Your task to perform on an android device: turn on location history Image 0: 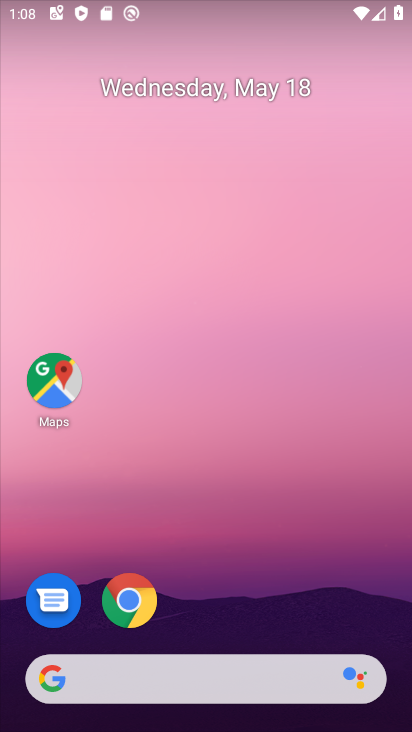
Step 0: drag from (263, 636) to (167, 196)
Your task to perform on an android device: turn on location history Image 1: 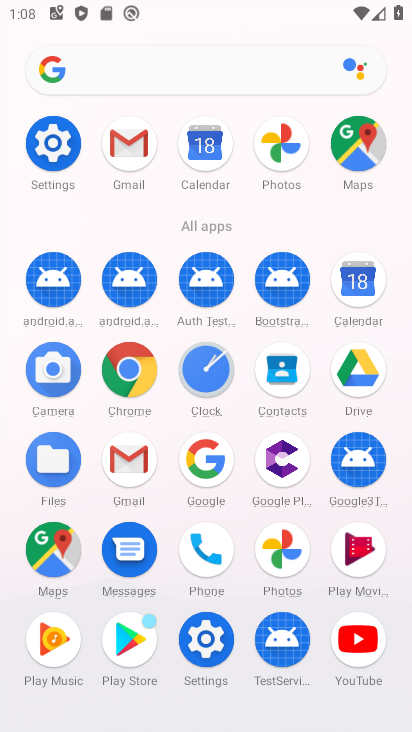
Step 1: drag from (239, 501) to (222, 369)
Your task to perform on an android device: turn on location history Image 2: 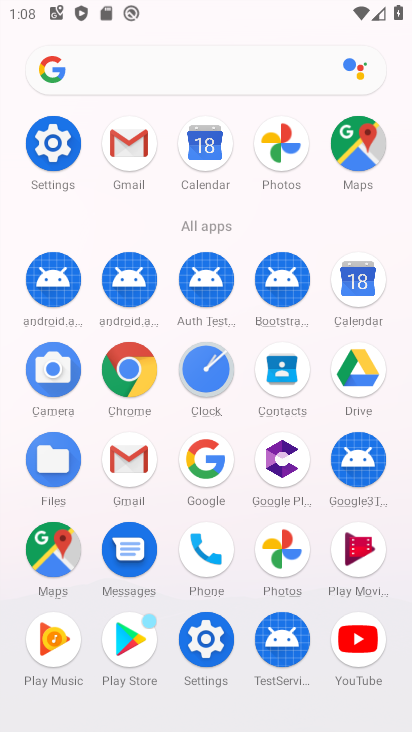
Step 2: click (51, 145)
Your task to perform on an android device: turn on location history Image 3: 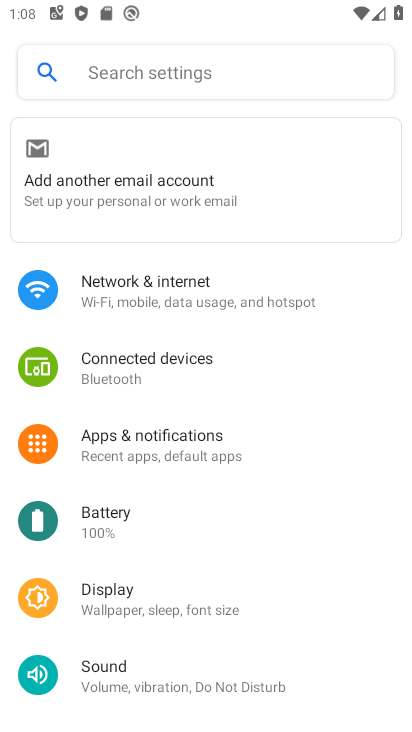
Step 3: drag from (187, 517) to (161, 366)
Your task to perform on an android device: turn on location history Image 4: 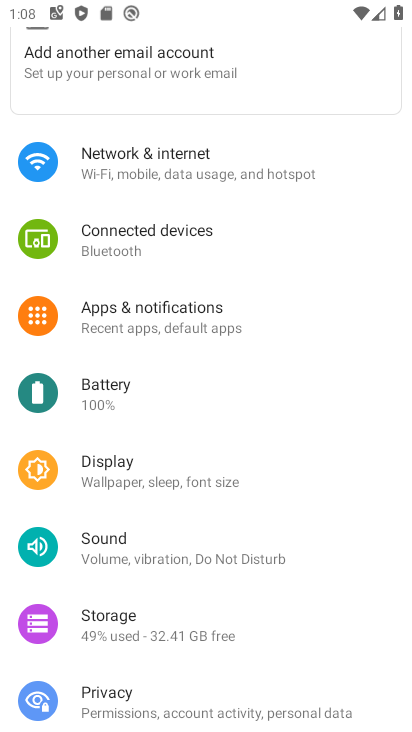
Step 4: drag from (165, 546) to (180, 443)
Your task to perform on an android device: turn on location history Image 5: 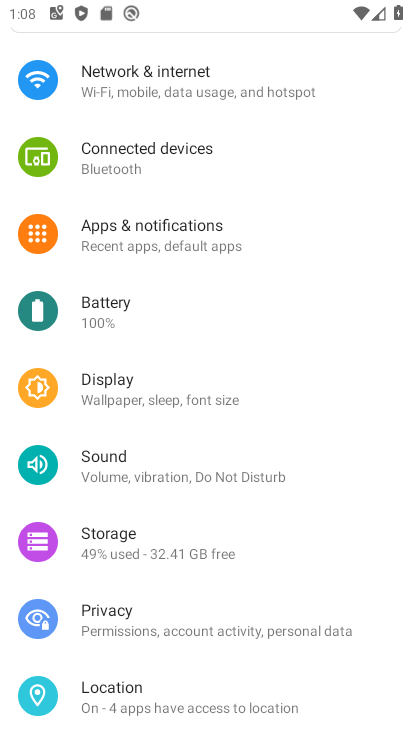
Step 5: drag from (177, 602) to (157, 487)
Your task to perform on an android device: turn on location history Image 6: 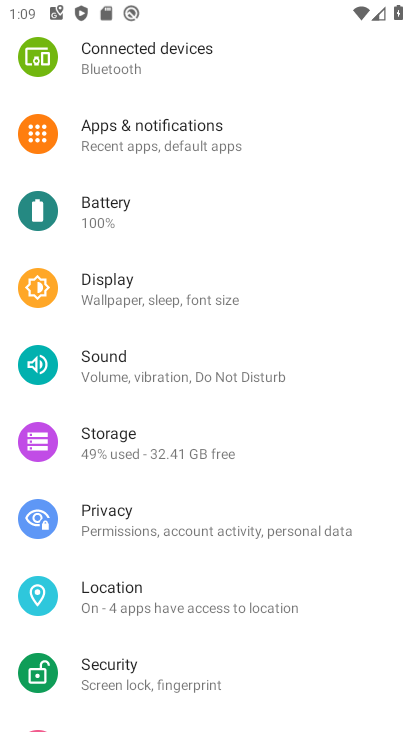
Step 6: click (168, 603)
Your task to perform on an android device: turn on location history Image 7: 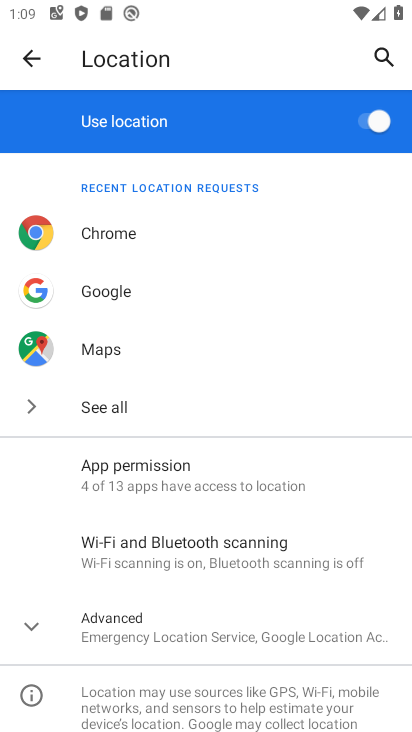
Step 7: drag from (158, 577) to (163, 437)
Your task to perform on an android device: turn on location history Image 8: 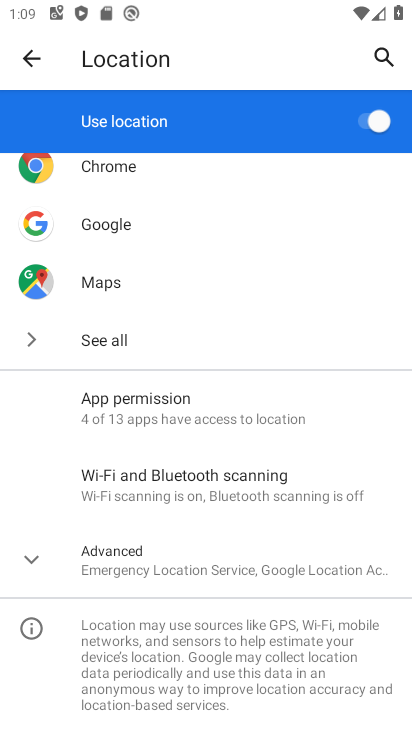
Step 8: click (161, 567)
Your task to perform on an android device: turn on location history Image 9: 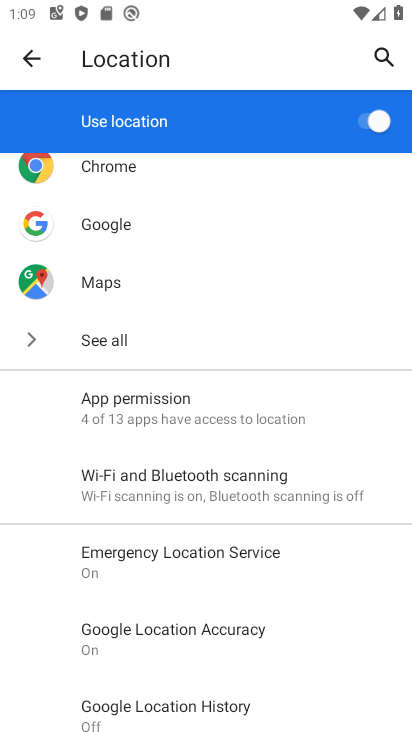
Step 9: drag from (174, 606) to (232, 469)
Your task to perform on an android device: turn on location history Image 10: 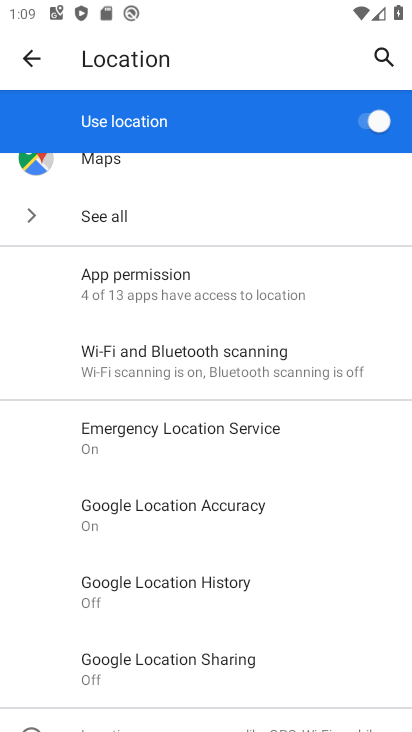
Step 10: click (153, 585)
Your task to perform on an android device: turn on location history Image 11: 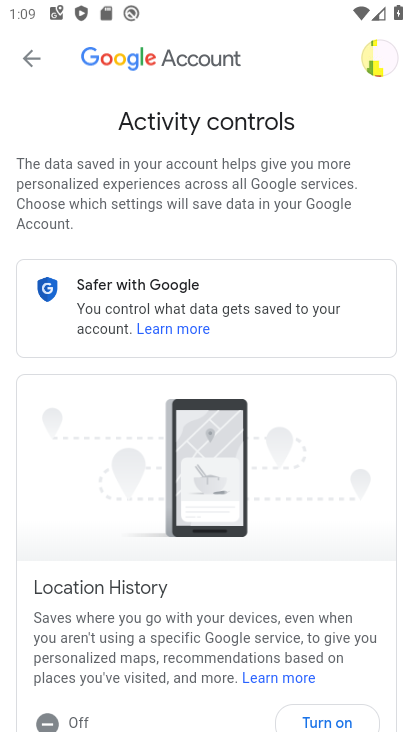
Step 11: click (327, 719)
Your task to perform on an android device: turn on location history Image 12: 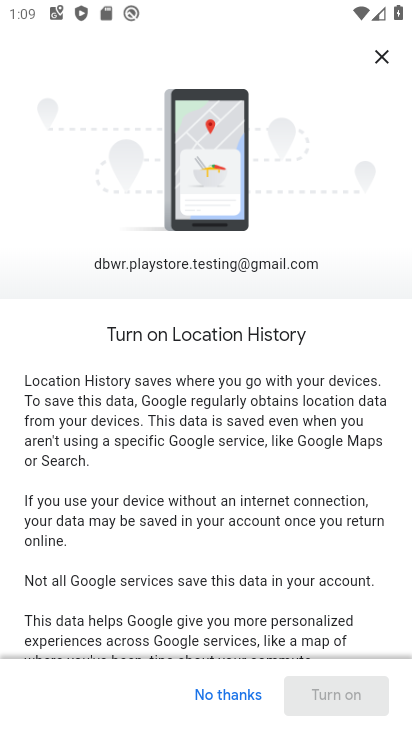
Step 12: drag from (276, 613) to (273, 428)
Your task to perform on an android device: turn on location history Image 13: 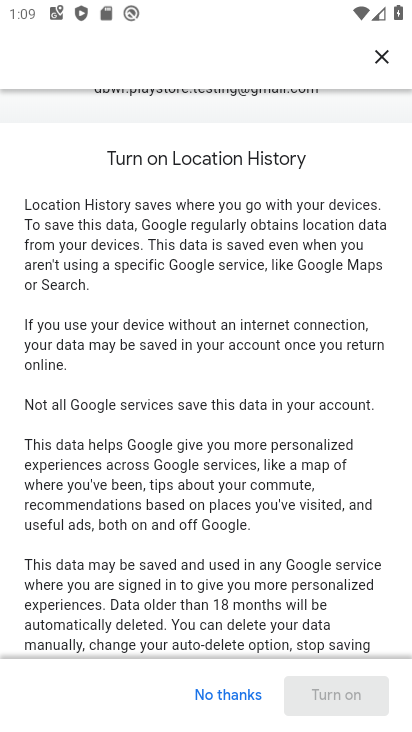
Step 13: drag from (238, 605) to (259, 389)
Your task to perform on an android device: turn on location history Image 14: 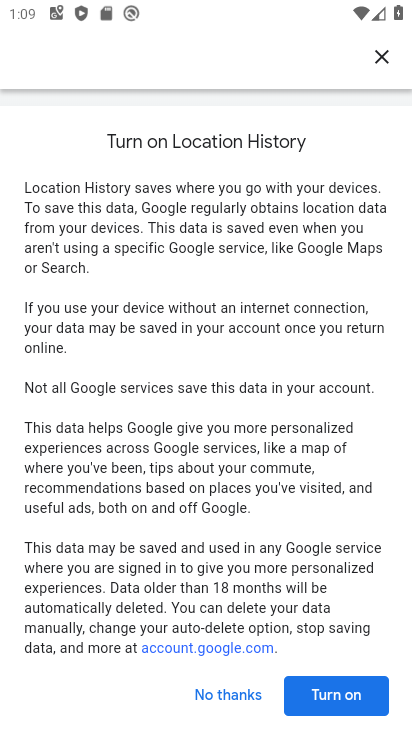
Step 14: click (338, 697)
Your task to perform on an android device: turn on location history Image 15: 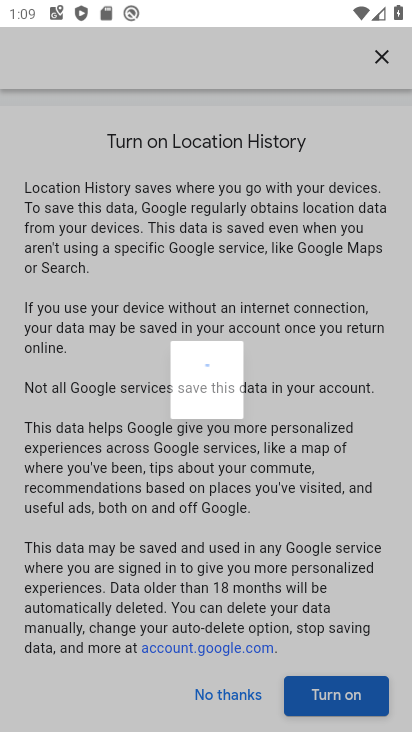
Step 15: click (338, 697)
Your task to perform on an android device: turn on location history Image 16: 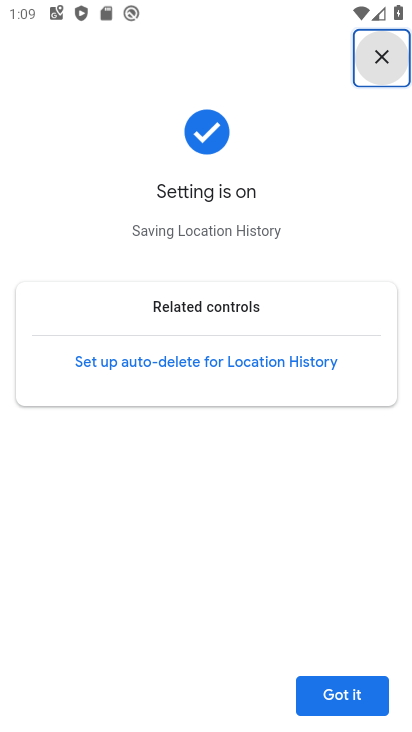
Step 16: click (338, 697)
Your task to perform on an android device: turn on location history Image 17: 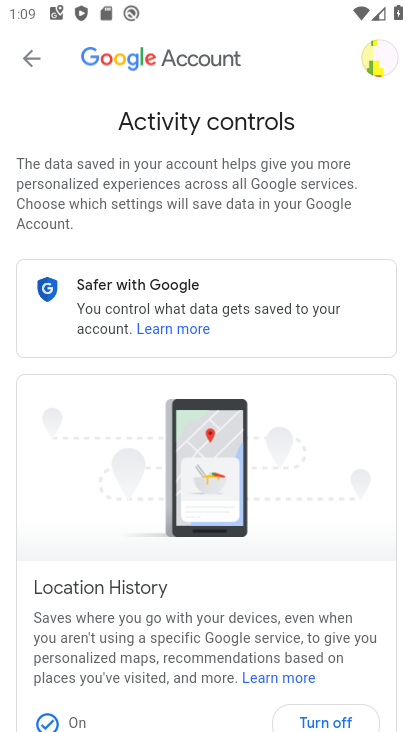
Step 17: task complete